Your task to perform on an android device: Open Chrome and go to settings Image 0: 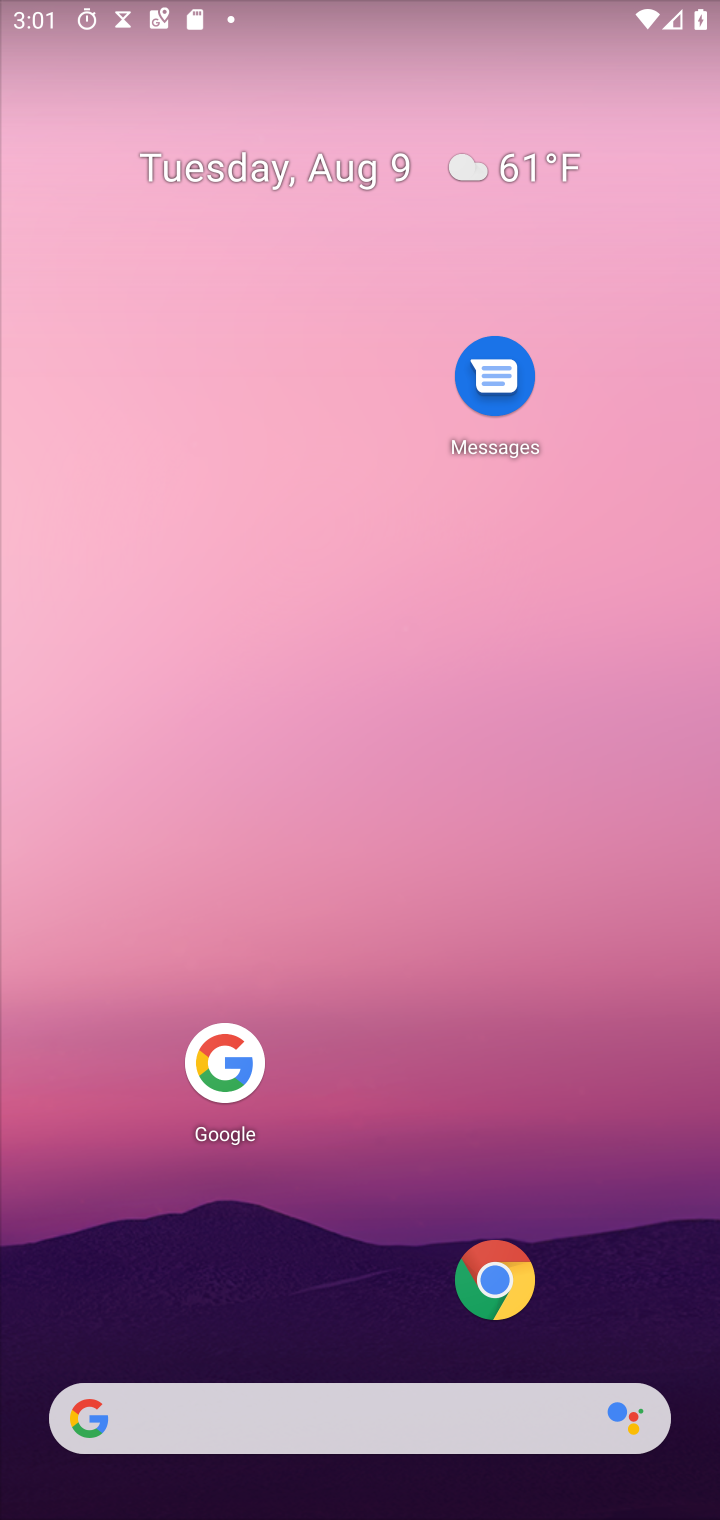
Step 0: press home button
Your task to perform on an android device: Open Chrome and go to settings Image 1: 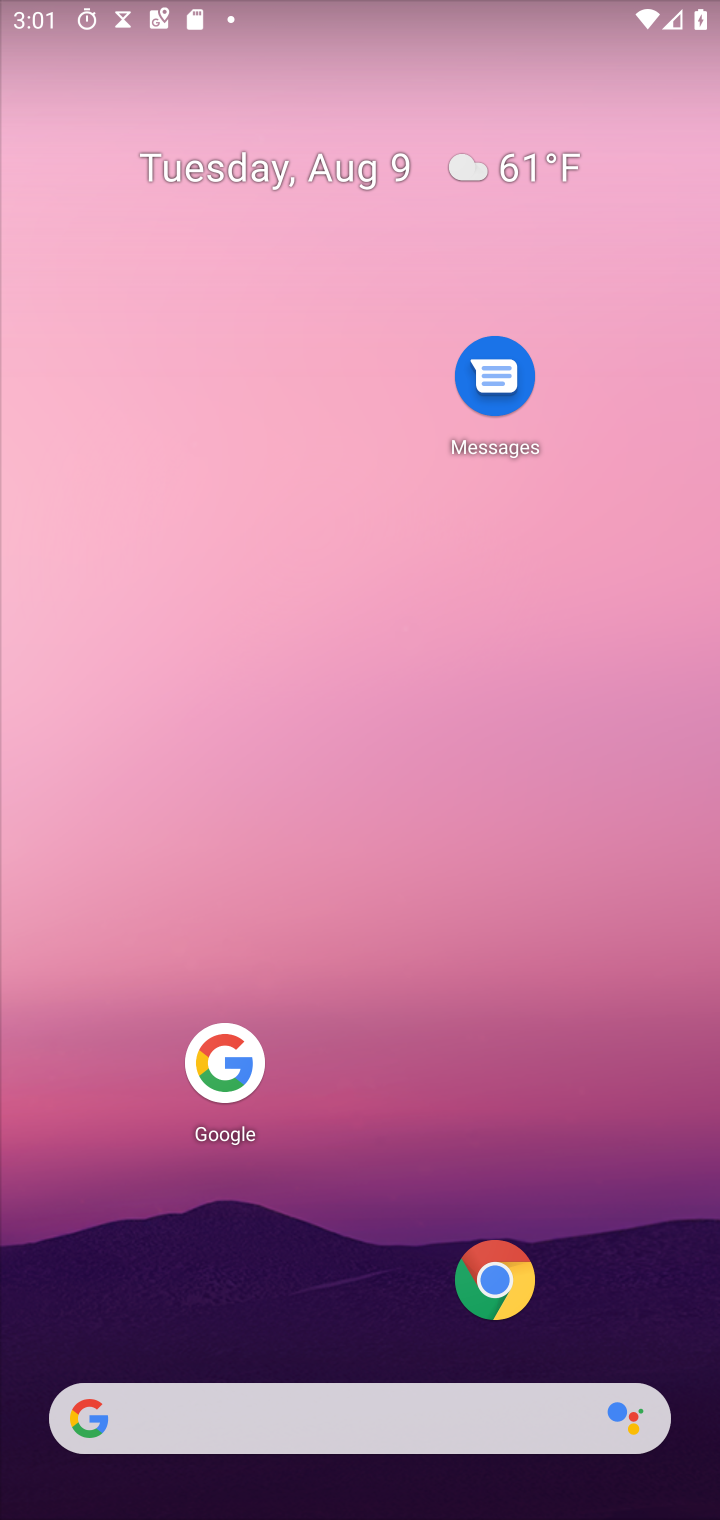
Step 1: click (492, 1265)
Your task to perform on an android device: Open Chrome and go to settings Image 2: 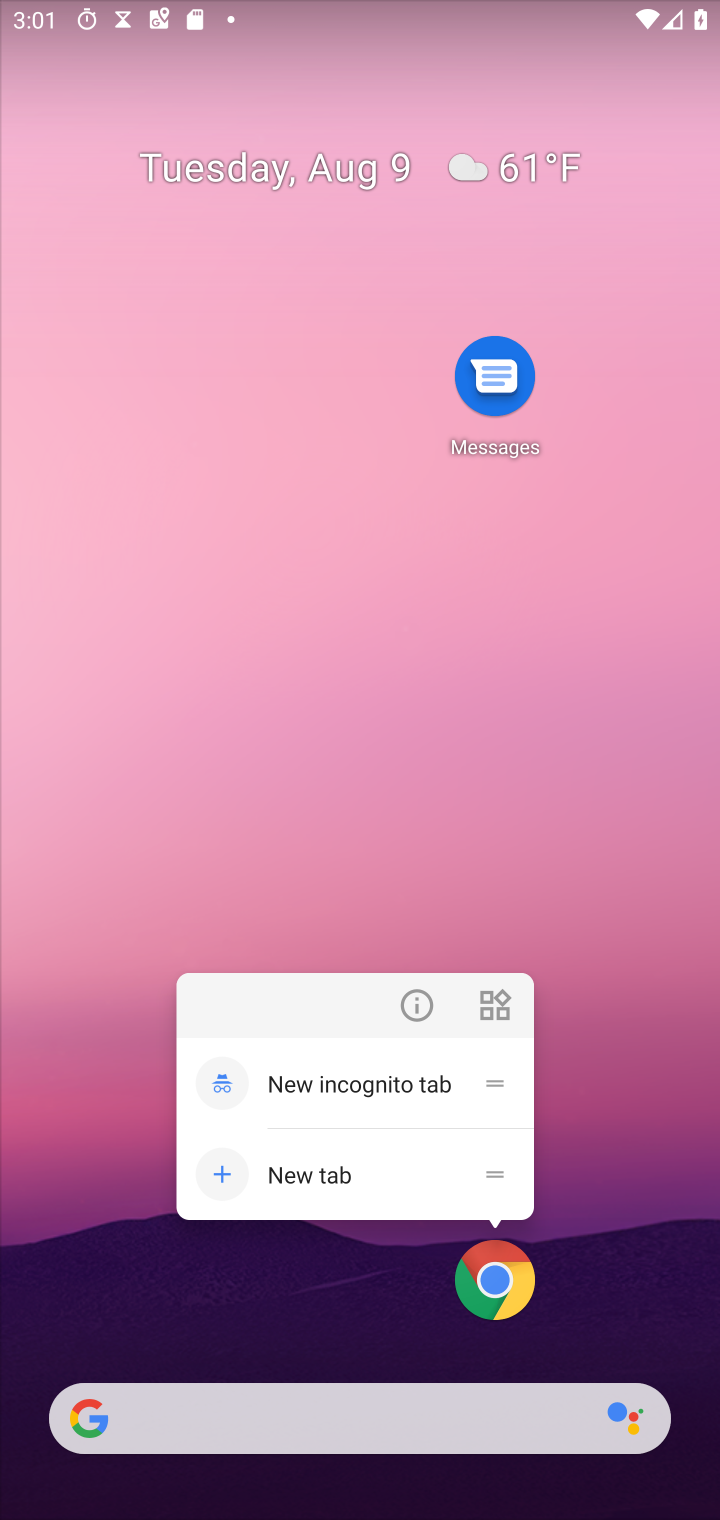
Step 2: click (492, 1264)
Your task to perform on an android device: Open Chrome and go to settings Image 3: 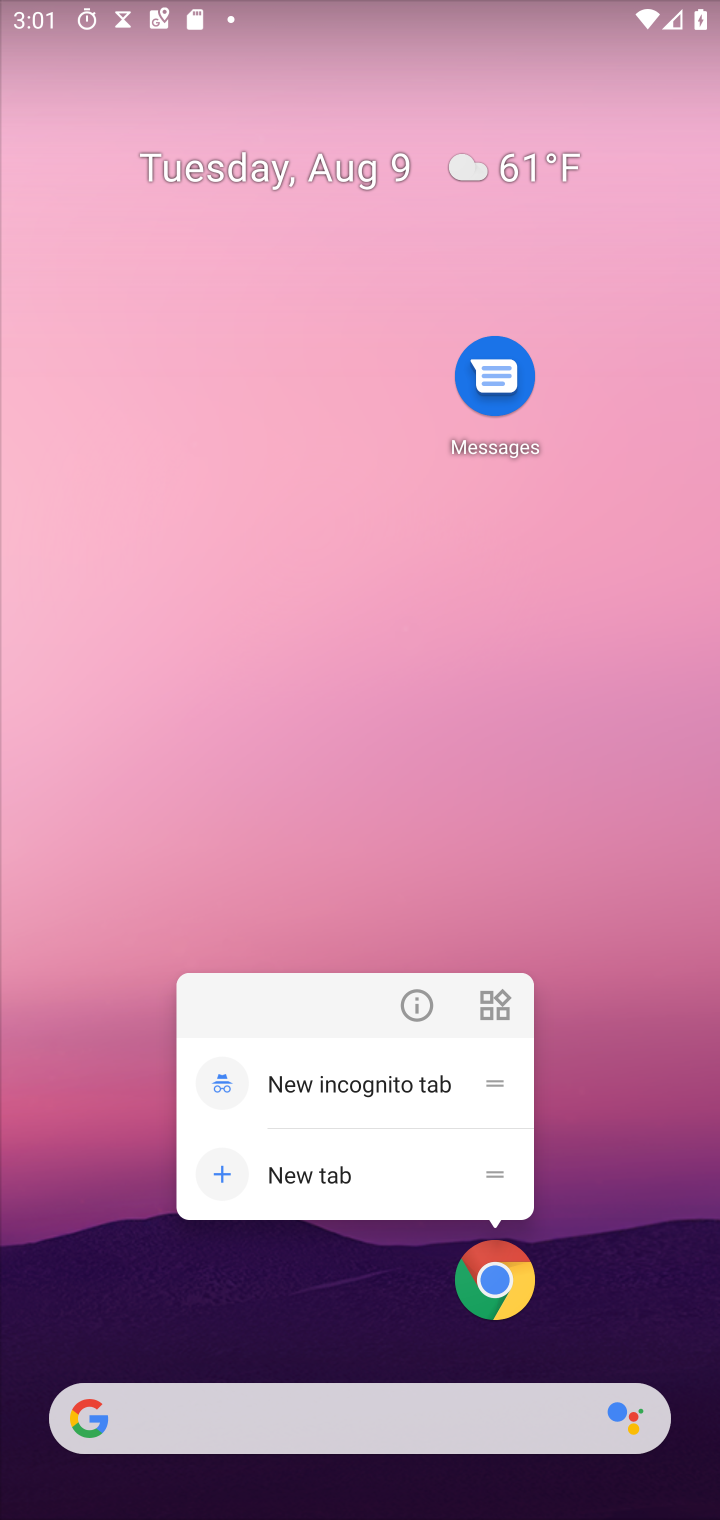
Step 3: click (490, 1286)
Your task to perform on an android device: Open Chrome and go to settings Image 4: 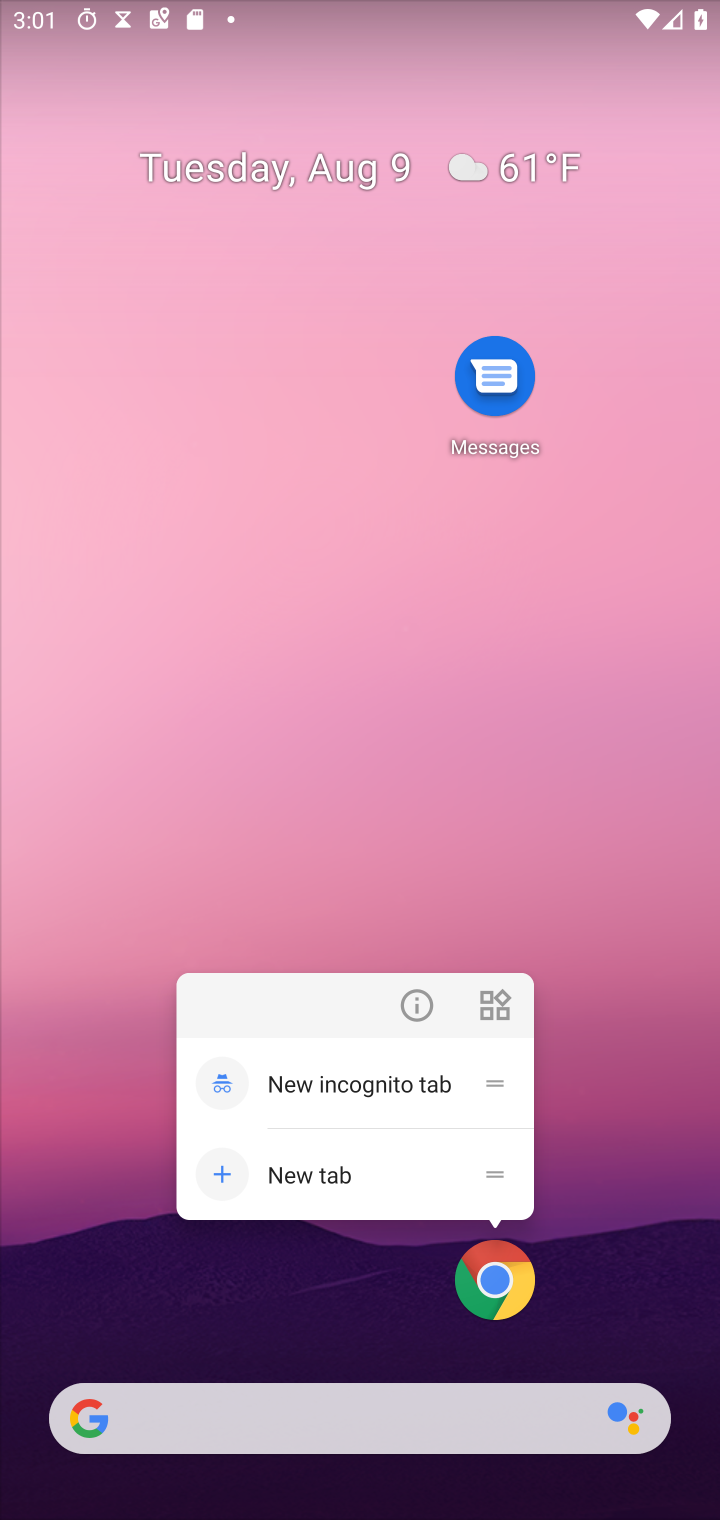
Step 4: click (490, 1286)
Your task to perform on an android device: Open Chrome and go to settings Image 5: 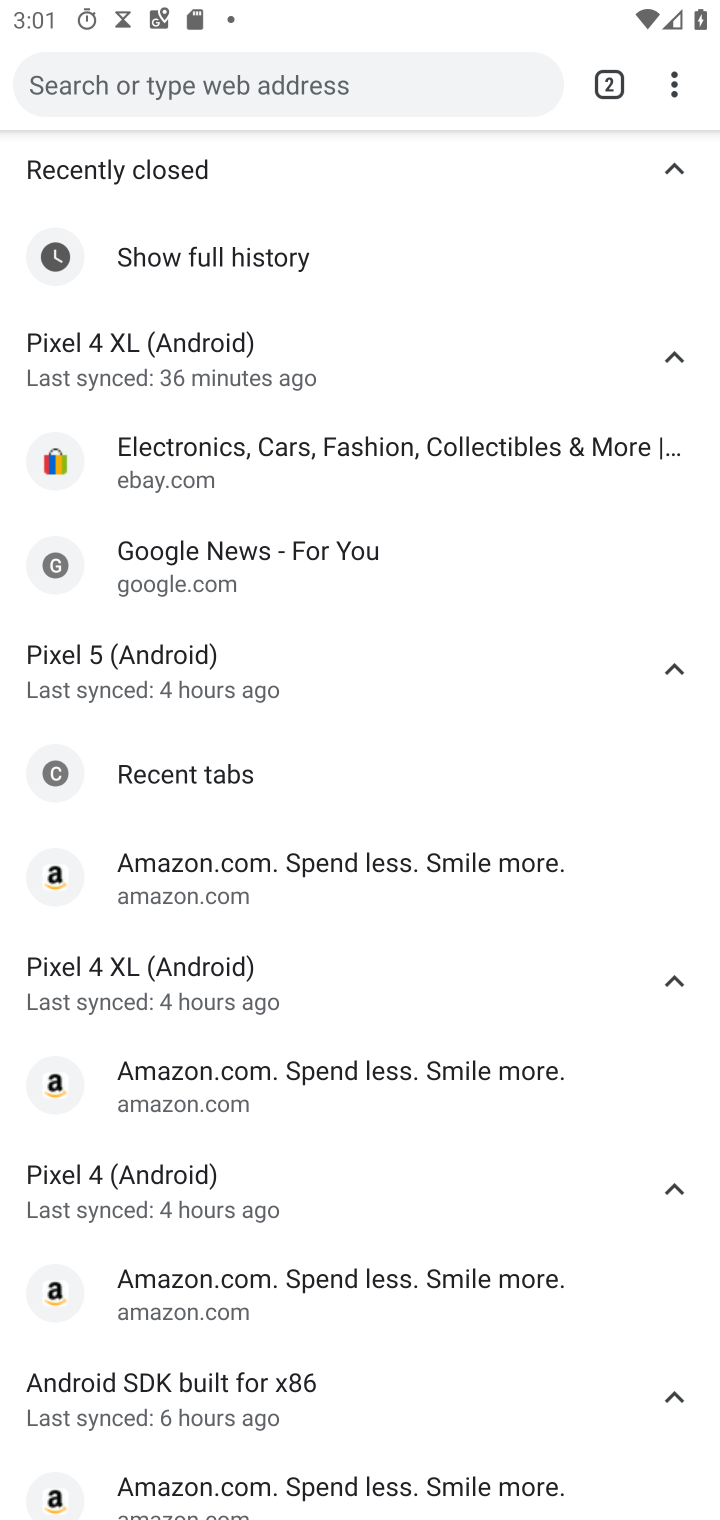
Step 5: task complete